Your task to perform on an android device: What's the weather going to be this weekend? Image 0: 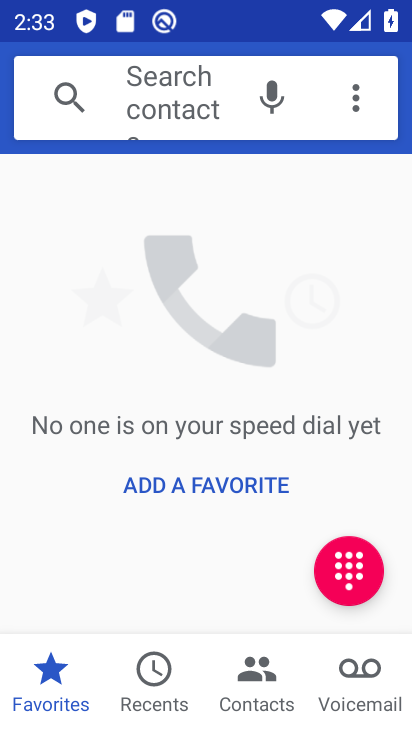
Step 0: press home button
Your task to perform on an android device: What's the weather going to be this weekend? Image 1: 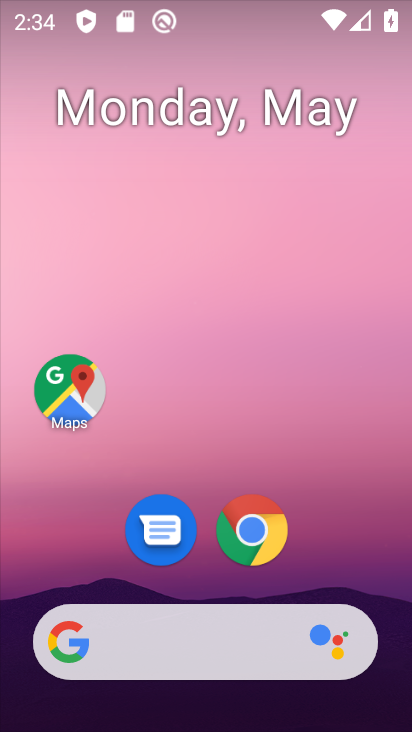
Step 1: click (148, 109)
Your task to perform on an android device: What's the weather going to be this weekend? Image 2: 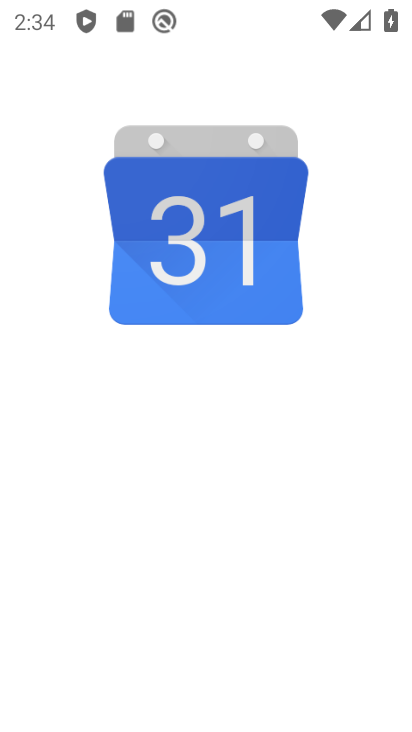
Step 2: click (148, 109)
Your task to perform on an android device: What's the weather going to be this weekend? Image 3: 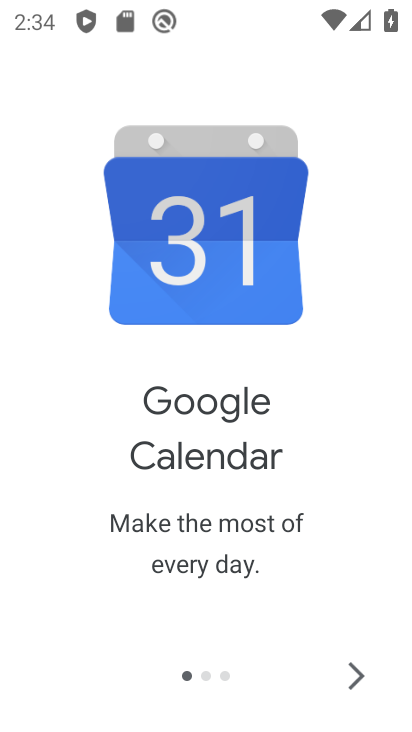
Step 3: click (366, 681)
Your task to perform on an android device: What's the weather going to be this weekend? Image 4: 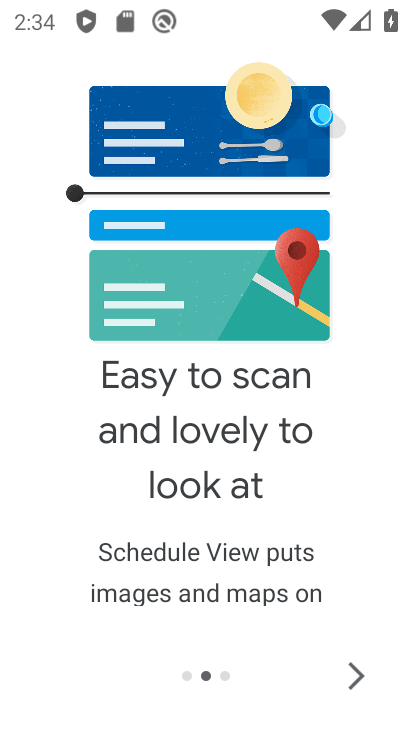
Step 4: press home button
Your task to perform on an android device: What's the weather going to be this weekend? Image 5: 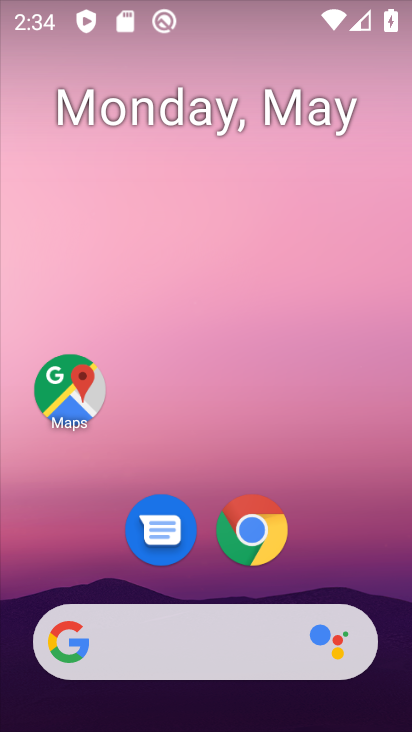
Step 5: click (151, 664)
Your task to perform on an android device: What's the weather going to be this weekend? Image 6: 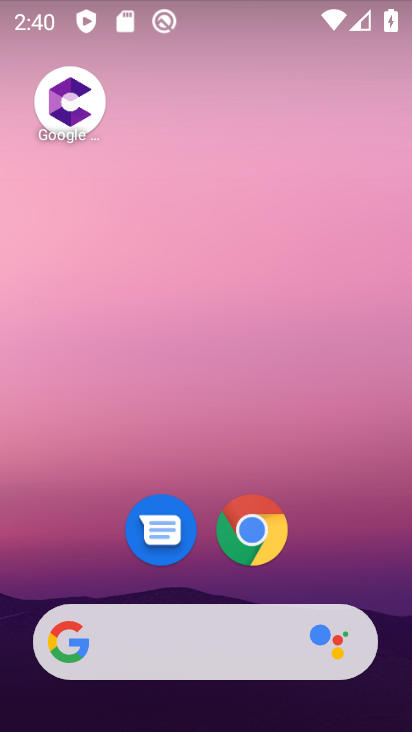
Step 6: drag from (197, 572) to (228, 198)
Your task to perform on an android device: What's the weather going to be this weekend? Image 7: 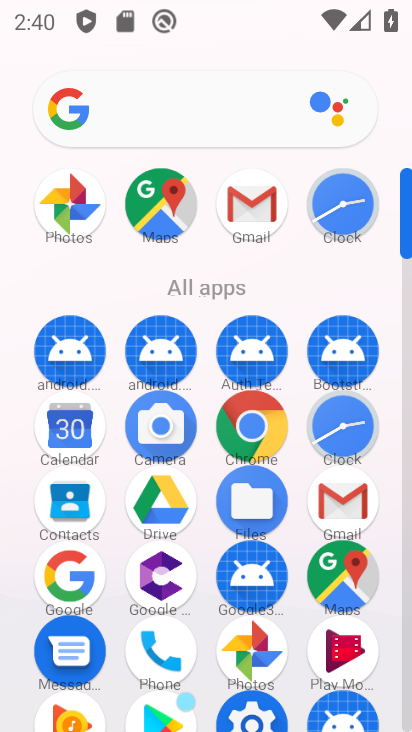
Step 7: press home button
Your task to perform on an android device: What's the weather going to be this weekend? Image 8: 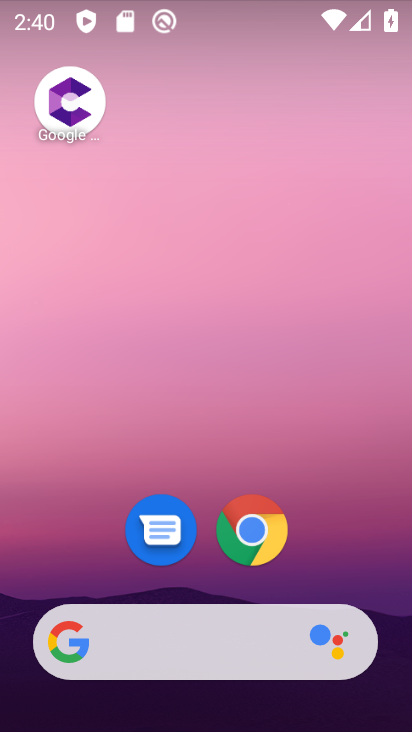
Step 8: click (170, 623)
Your task to perform on an android device: What's the weather going to be this weekend? Image 9: 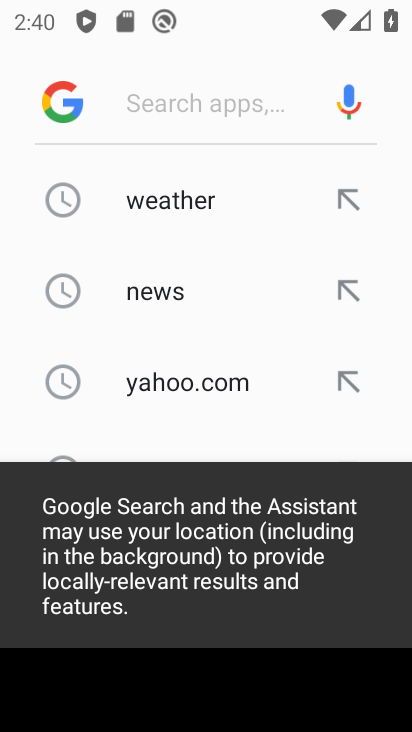
Step 9: click (225, 214)
Your task to perform on an android device: What's the weather going to be this weekend? Image 10: 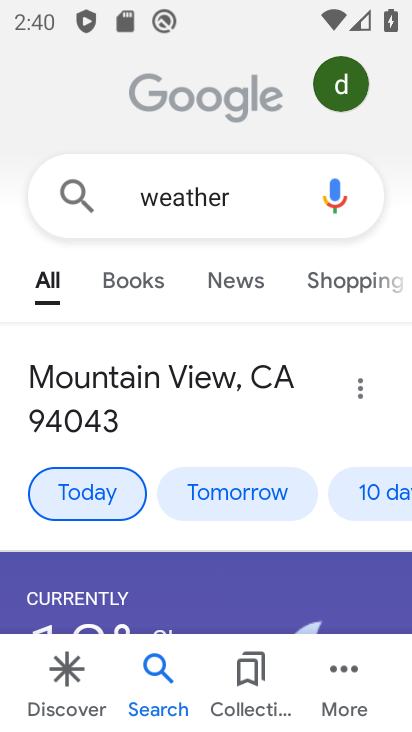
Step 10: task complete